Your task to perform on an android device: see sites visited before in the chrome app Image 0: 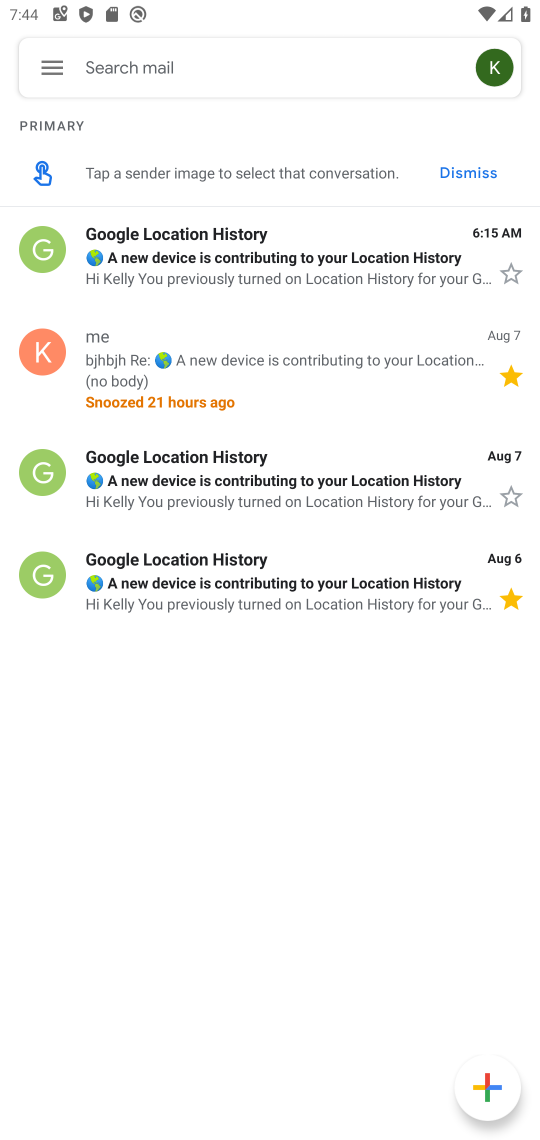
Step 0: press home button
Your task to perform on an android device: see sites visited before in the chrome app Image 1: 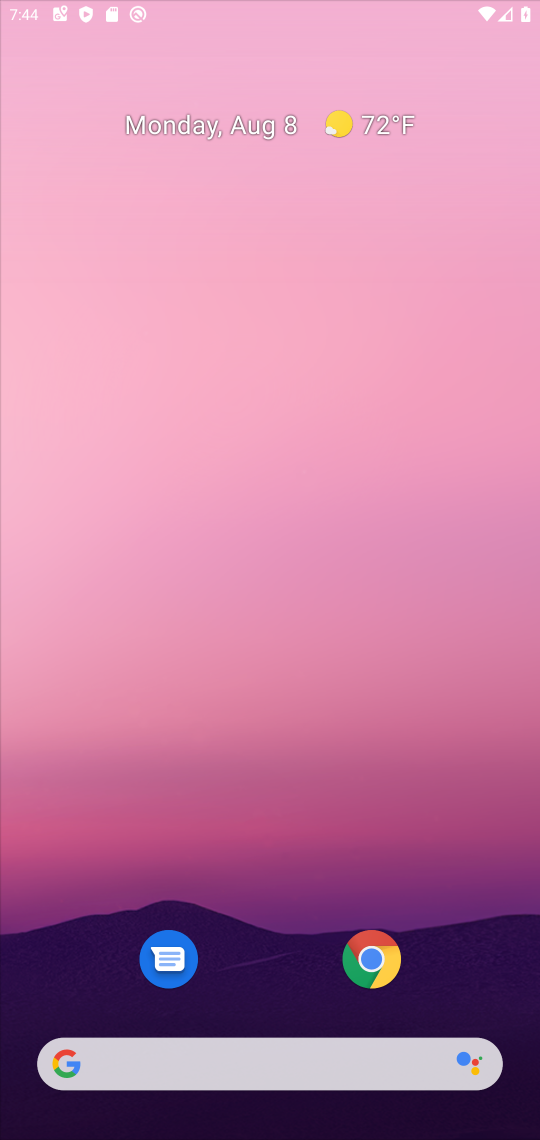
Step 1: drag from (465, 939) to (245, 113)
Your task to perform on an android device: see sites visited before in the chrome app Image 2: 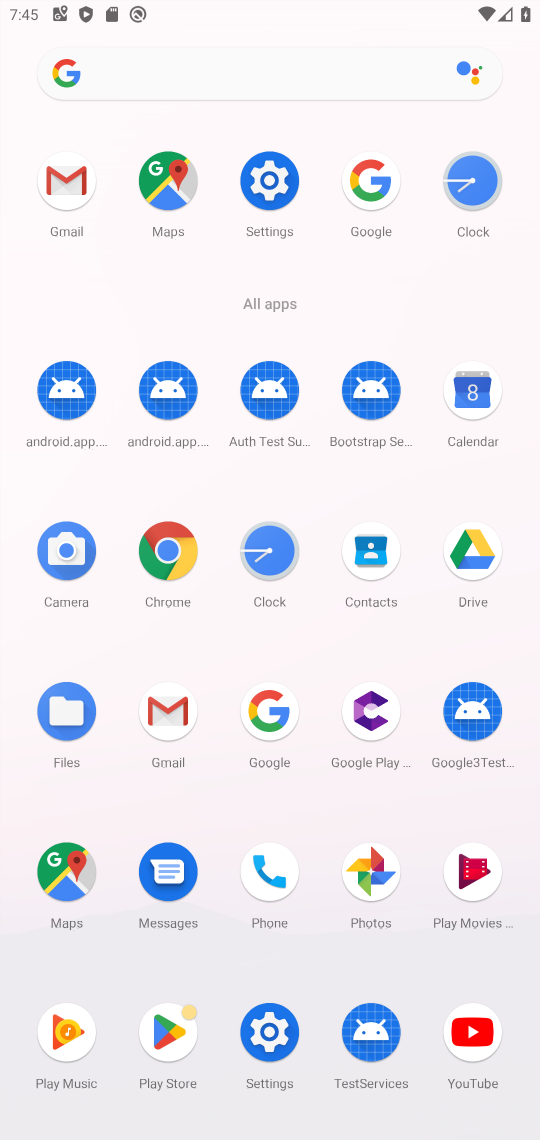
Step 2: click (148, 550)
Your task to perform on an android device: see sites visited before in the chrome app Image 3: 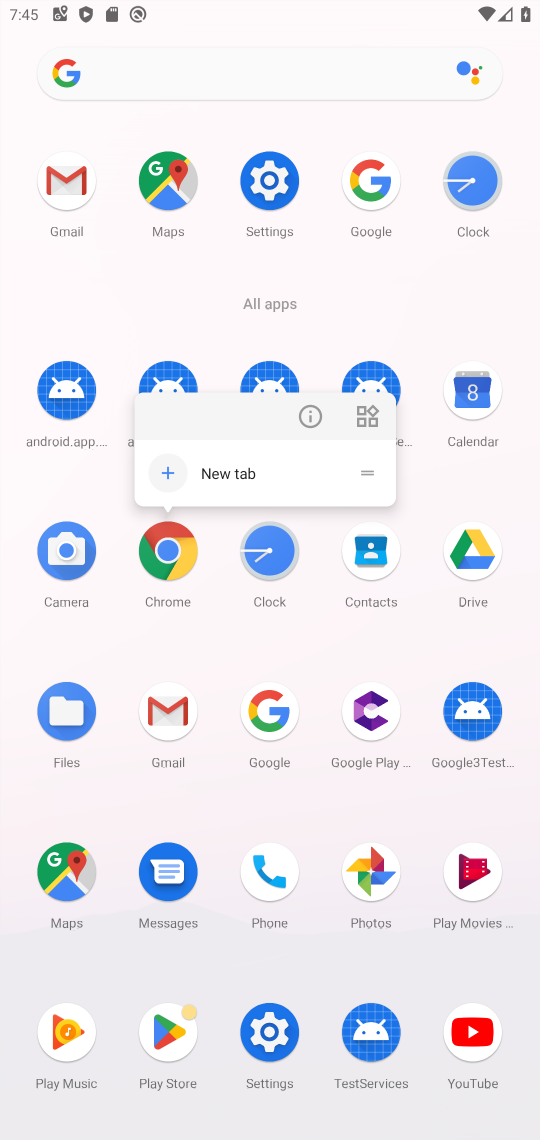
Step 3: click (148, 550)
Your task to perform on an android device: see sites visited before in the chrome app Image 4: 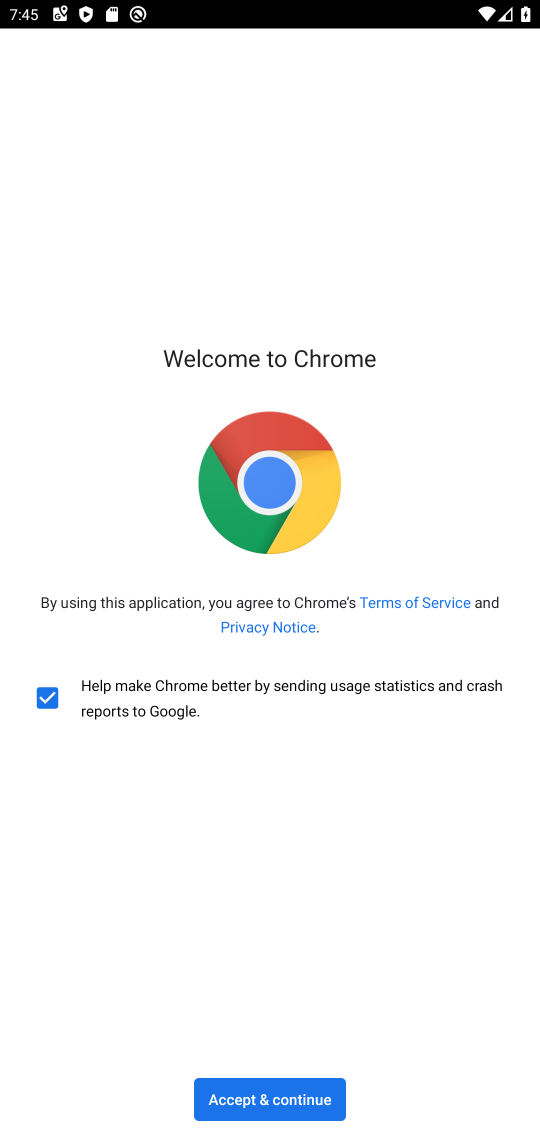
Step 4: click (286, 1093)
Your task to perform on an android device: see sites visited before in the chrome app Image 5: 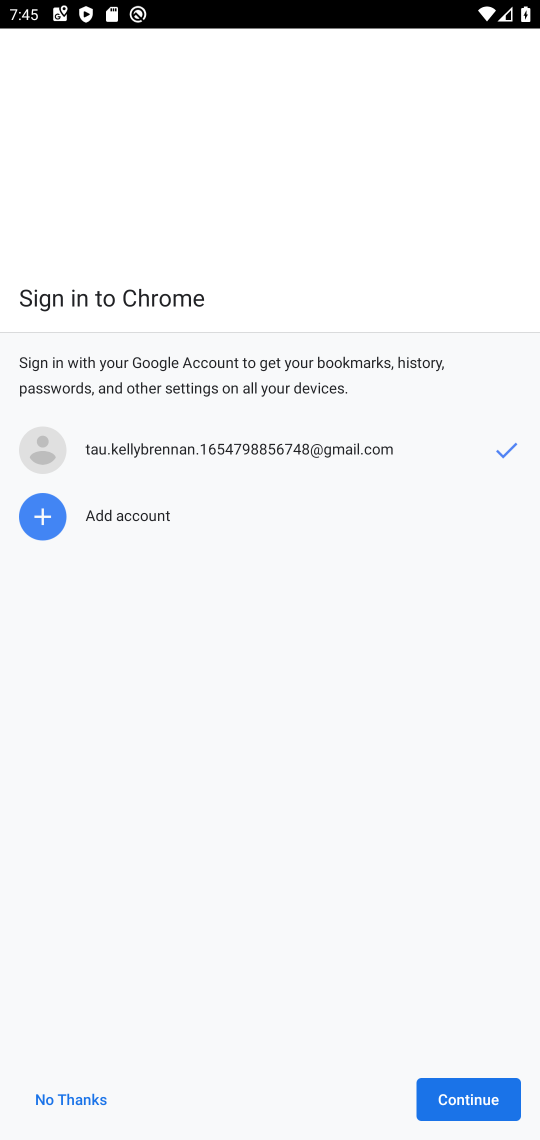
Step 5: click (463, 1094)
Your task to perform on an android device: see sites visited before in the chrome app Image 6: 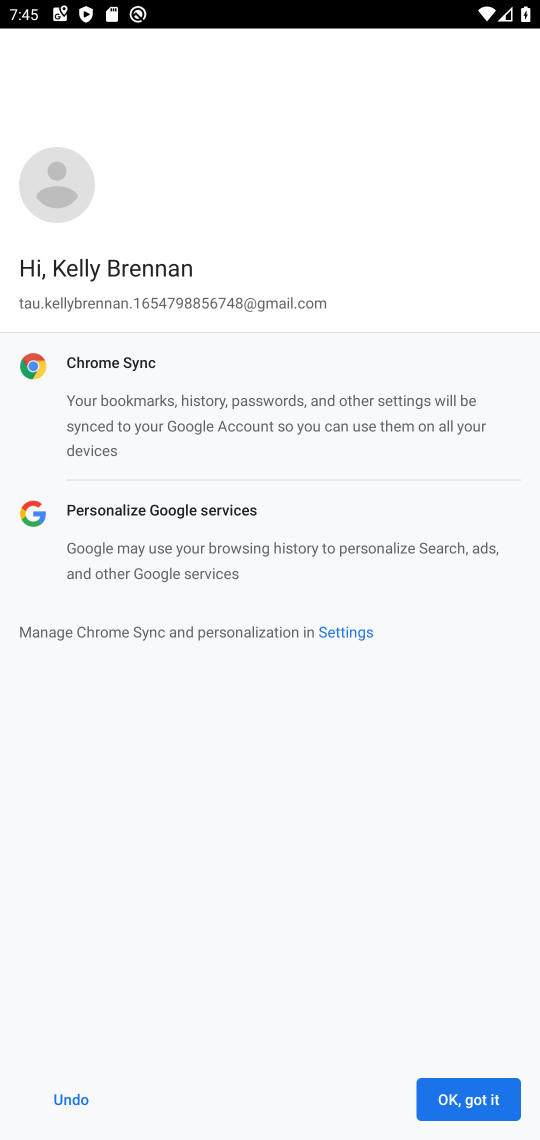
Step 6: click (465, 1093)
Your task to perform on an android device: see sites visited before in the chrome app Image 7: 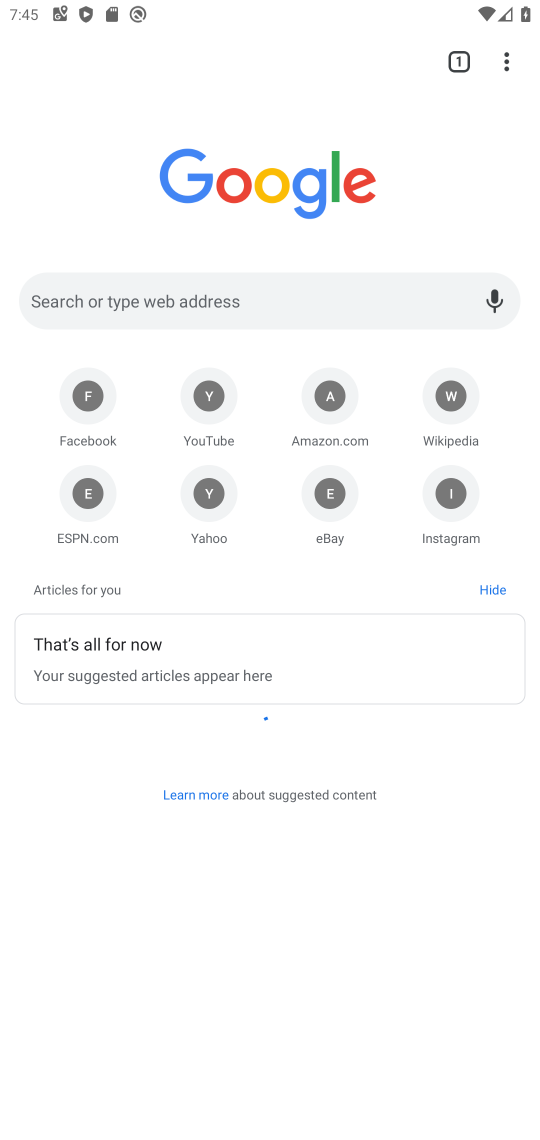
Step 7: task complete